Your task to perform on an android device: turn on data saver in the chrome app Image 0: 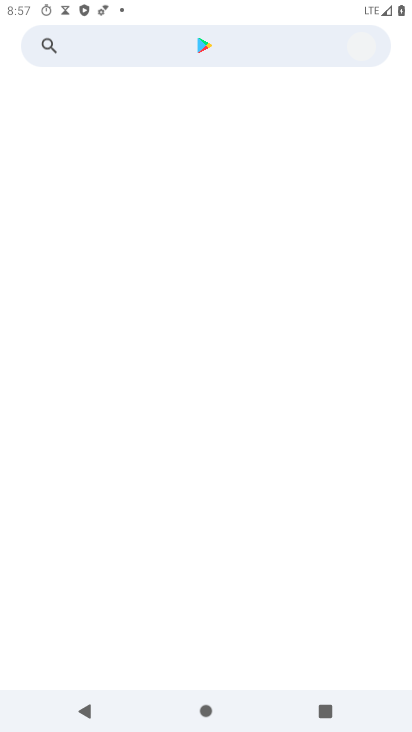
Step 0: press back button
Your task to perform on an android device: turn on data saver in the chrome app Image 1: 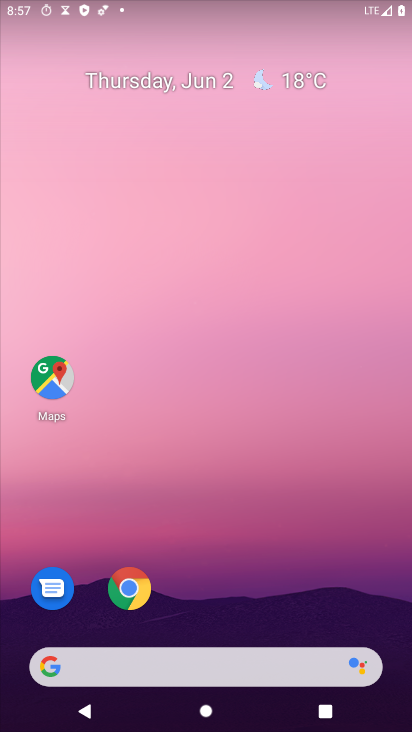
Step 1: click (128, 587)
Your task to perform on an android device: turn on data saver in the chrome app Image 2: 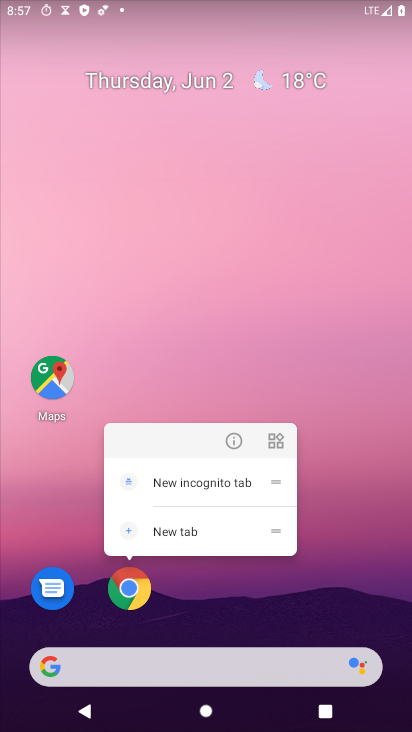
Step 2: click (119, 592)
Your task to perform on an android device: turn on data saver in the chrome app Image 3: 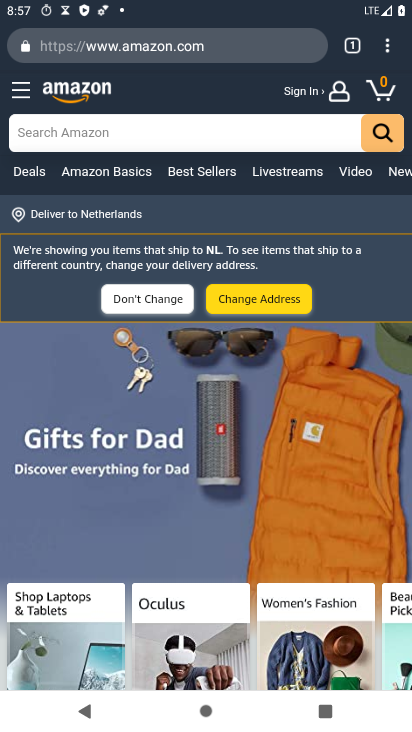
Step 3: drag from (387, 48) to (232, 510)
Your task to perform on an android device: turn on data saver in the chrome app Image 4: 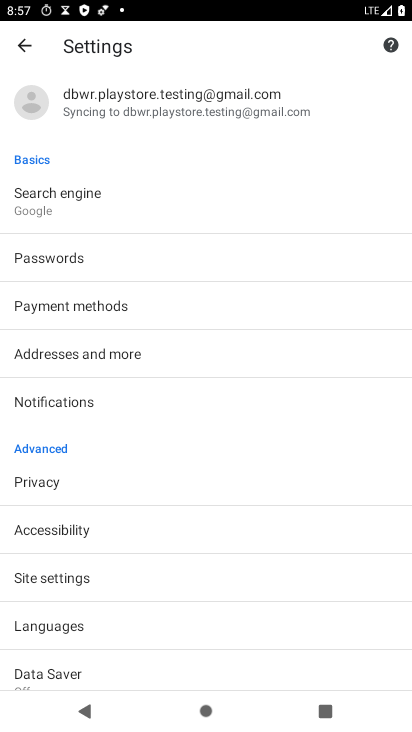
Step 4: click (76, 666)
Your task to perform on an android device: turn on data saver in the chrome app Image 5: 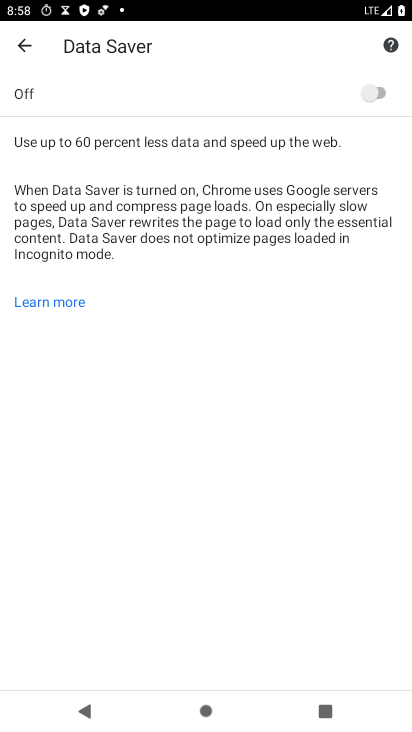
Step 5: click (382, 87)
Your task to perform on an android device: turn on data saver in the chrome app Image 6: 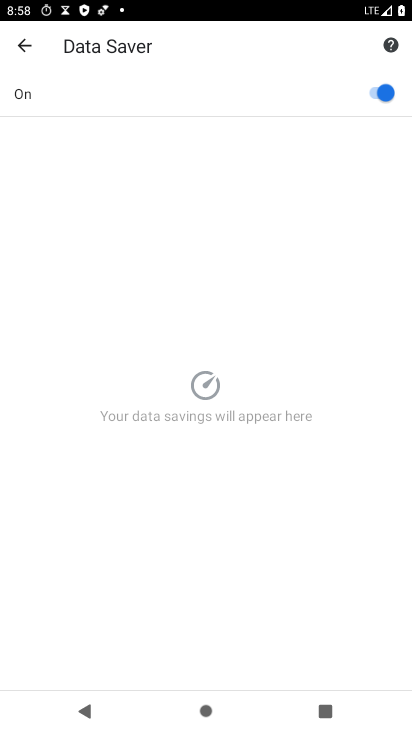
Step 6: task complete